Your task to perform on an android device: turn vacation reply on in the gmail app Image 0: 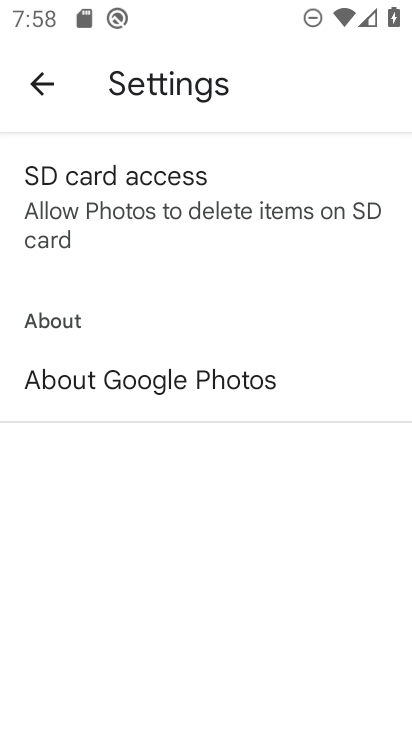
Step 0: press home button
Your task to perform on an android device: turn vacation reply on in the gmail app Image 1: 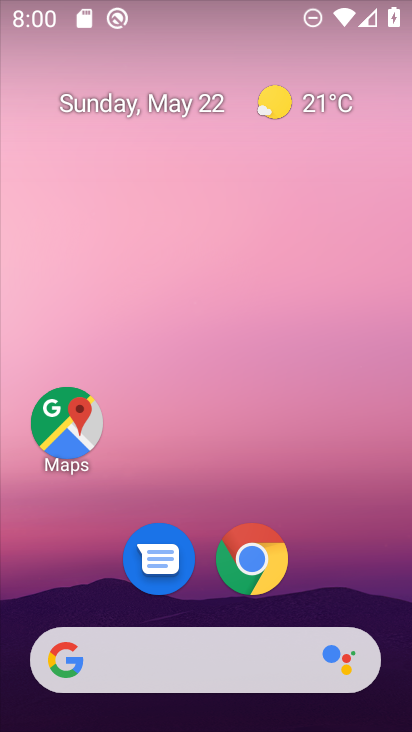
Step 1: drag from (242, 408) to (216, 154)
Your task to perform on an android device: turn vacation reply on in the gmail app Image 2: 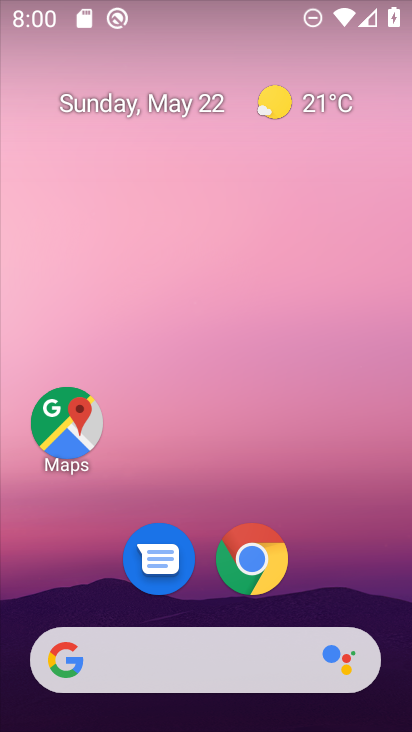
Step 2: drag from (299, 707) to (296, 219)
Your task to perform on an android device: turn vacation reply on in the gmail app Image 3: 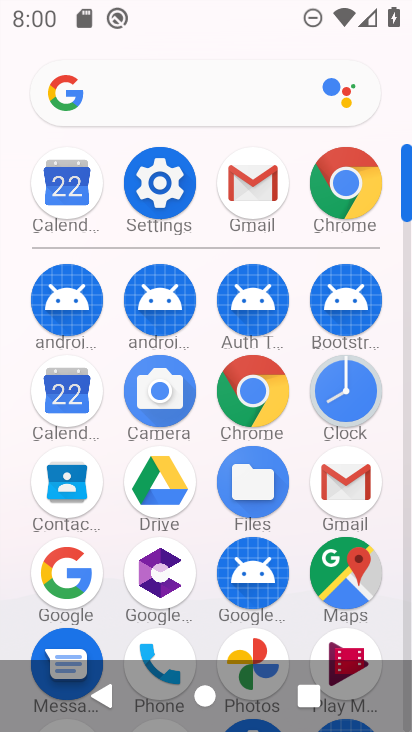
Step 3: click (245, 177)
Your task to perform on an android device: turn vacation reply on in the gmail app Image 4: 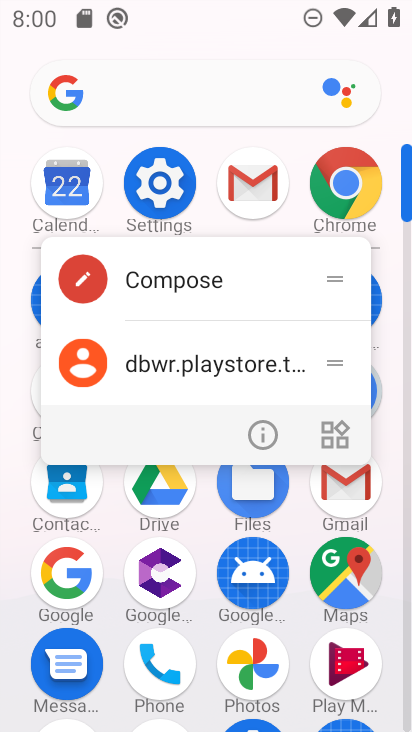
Step 4: click (262, 174)
Your task to perform on an android device: turn vacation reply on in the gmail app Image 5: 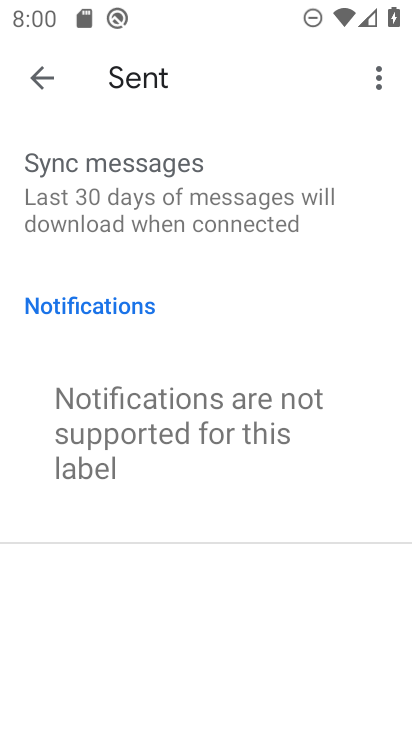
Step 5: click (48, 67)
Your task to perform on an android device: turn vacation reply on in the gmail app Image 6: 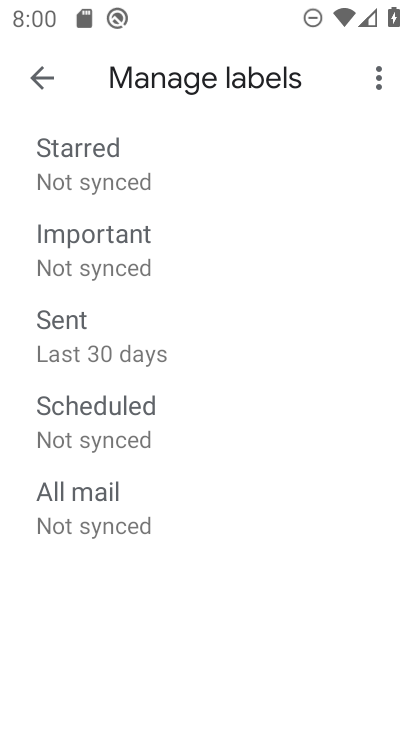
Step 6: click (41, 79)
Your task to perform on an android device: turn vacation reply on in the gmail app Image 7: 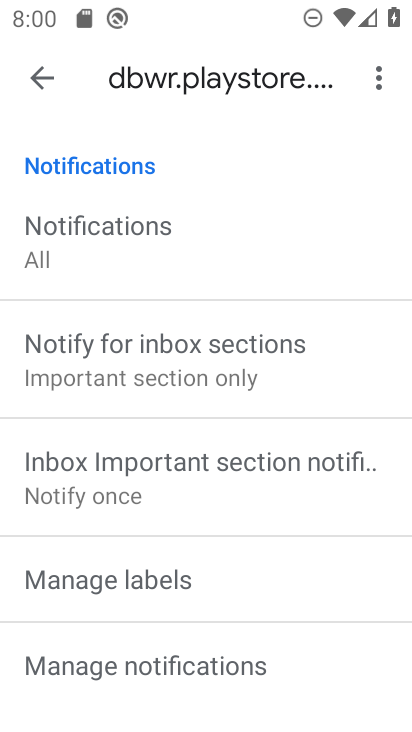
Step 7: drag from (189, 612) to (230, 339)
Your task to perform on an android device: turn vacation reply on in the gmail app Image 8: 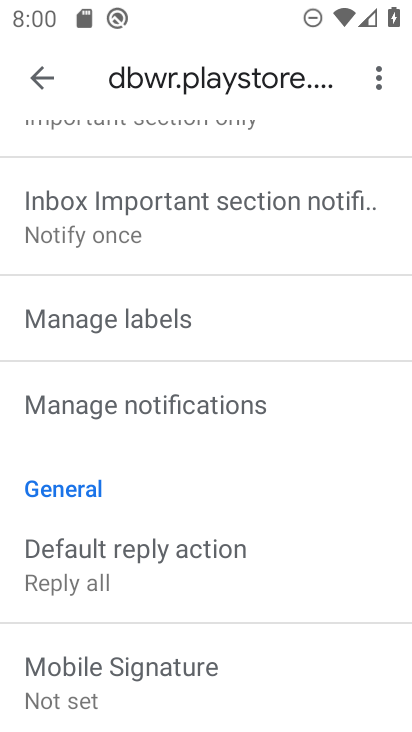
Step 8: drag from (178, 584) to (182, 288)
Your task to perform on an android device: turn vacation reply on in the gmail app Image 9: 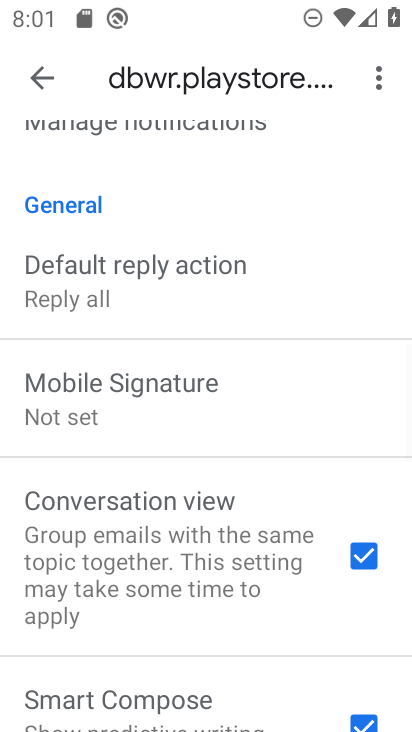
Step 9: drag from (231, 614) to (251, 210)
Your task to perform on an android device: turn vacation reply on in the gmail app Image 10: 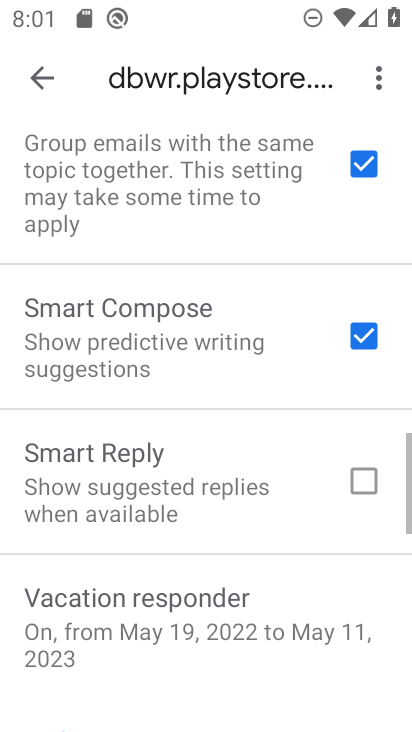
Step 10: drag from (165, 671) to (172, 586)
Your task to perform on an android device: turn vacation reply on in the gmail app Image 11: 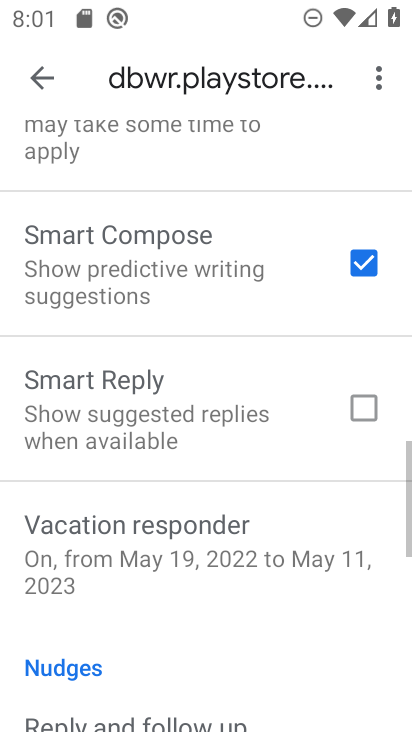
Step 11: click (165, 611)
Your task to perform on an android device: turn vacation reply on in the gmail app Image 12: 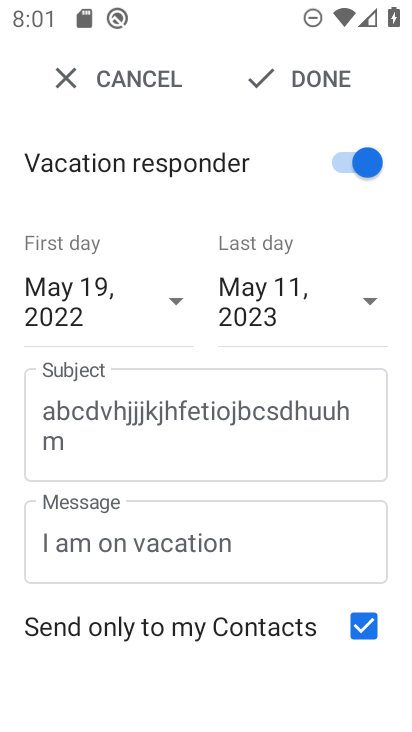
Step 12: task complete